Your task to perform on an android device: allow cookies in the chrome app Image 0: 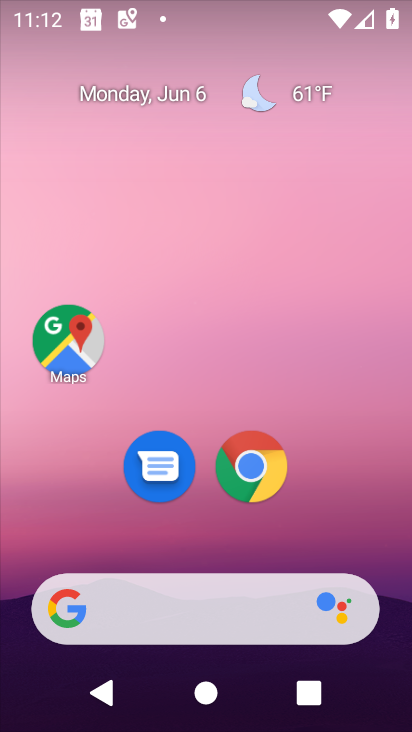
Step 0: drag from (379, 529) to (340, 165)
Your task to perform on an android device: allow cookies in the chrome app Image 1: 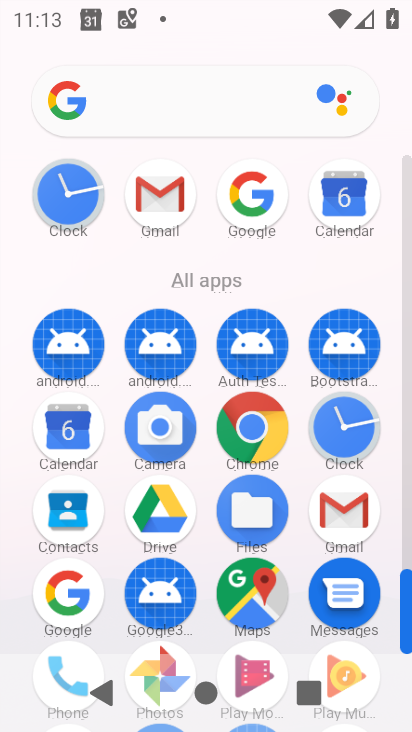
Step 1: drag from (408, 586) to (398, 709)
Your task to perform on an android device: allow cookies in the chrome app Image 2: 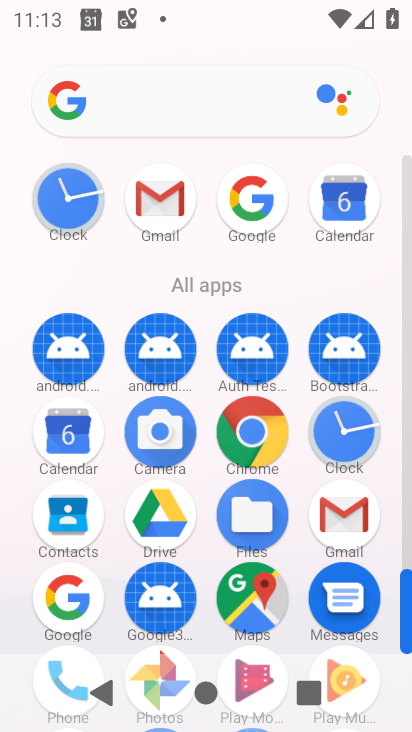
Step 2: drag from (380, 652) to (359, 214)
Your task to perform on an android device: allow cookies in the chrome app Image 3: 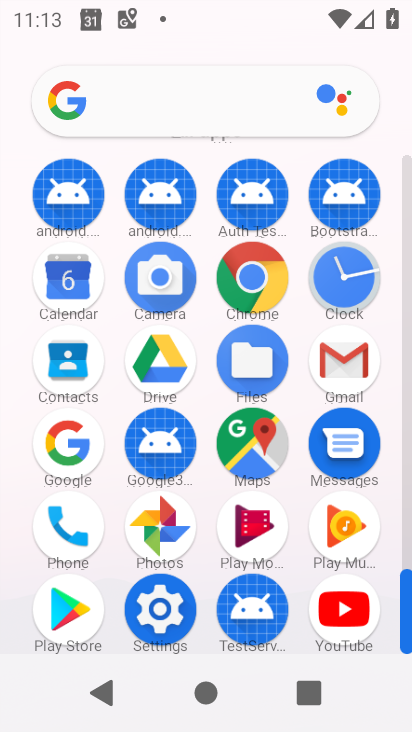
Step 3: click (254, 265)
Your task to perform on an android device: allow cookies in the chrome app Image 4: 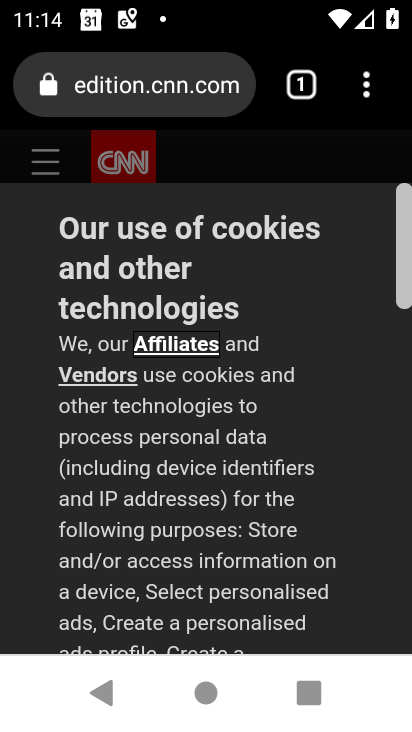
Step 4: drag from (370, 86) to (115, 506)
Your task to perform on an android device: allow cookies in the chrome app Image 5: 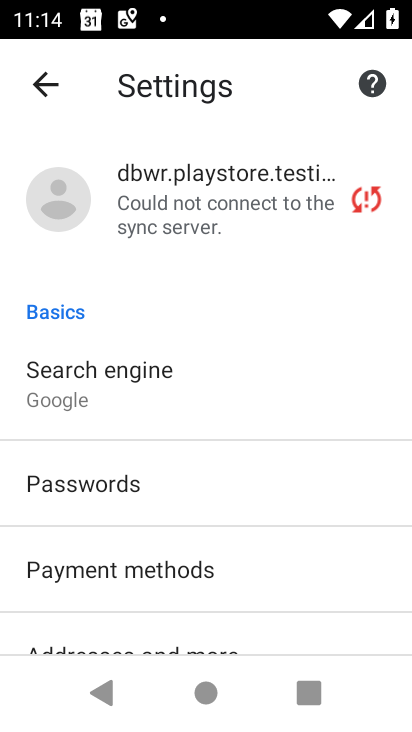
Step 5: drag from (247, 606) to (180, 288)
Your task to perform on an android device: allow cookies in the chrome app Image 6: 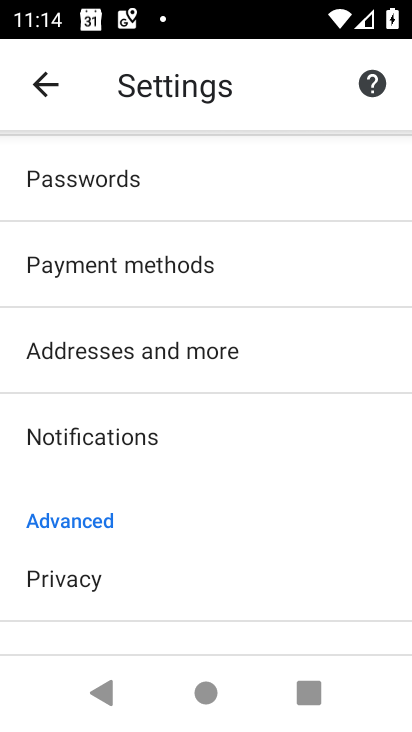
Step 6: drag from (105, 584) to (93, 345)
Your task to perform on an android device: allow cookies in the chrome app Image 7: 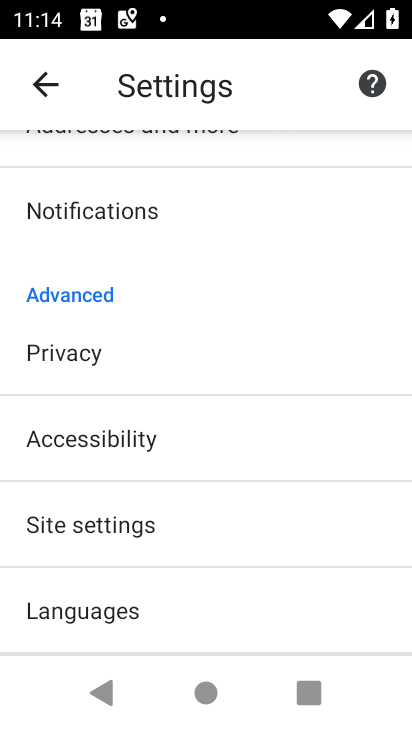
Step 7: drag from (151, 613) to (134, 554)
Your task to perform on an android device: allow cookies in the chrome app Image 8: 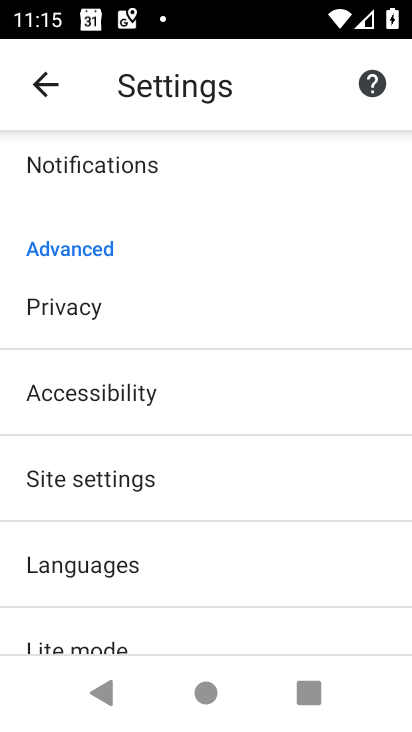
Step 8: click (95, 472)
Your task to perform on an android device: allow cookies in the chrome app Image 9: 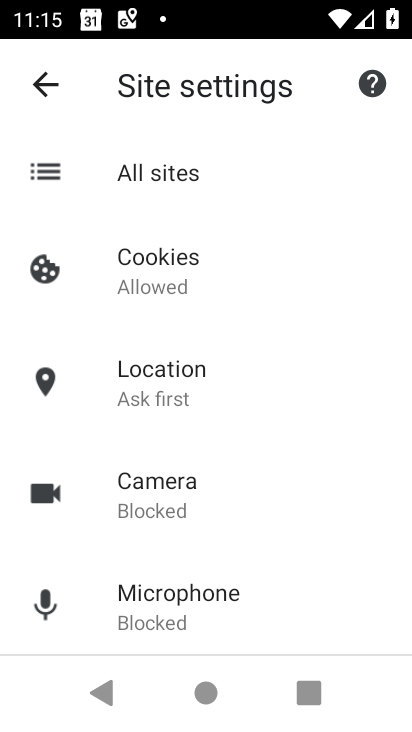
Step 9: click (186, 300)
Your task to perform on an android device: allow cookies in the chrome app Image 10: 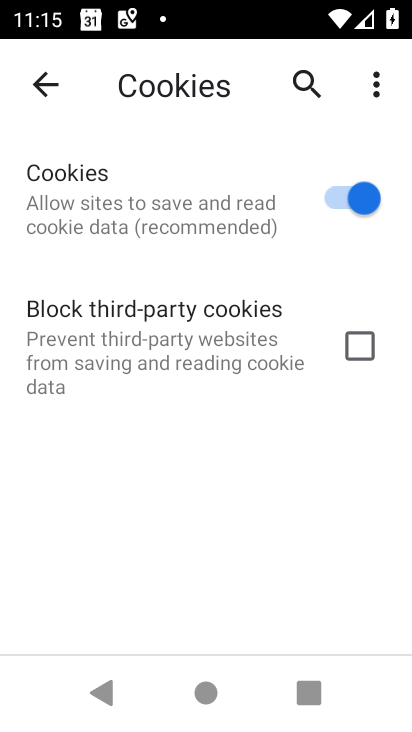
Step 10: task complete